Your task to perform on an android device: toggle wifi Image 0: 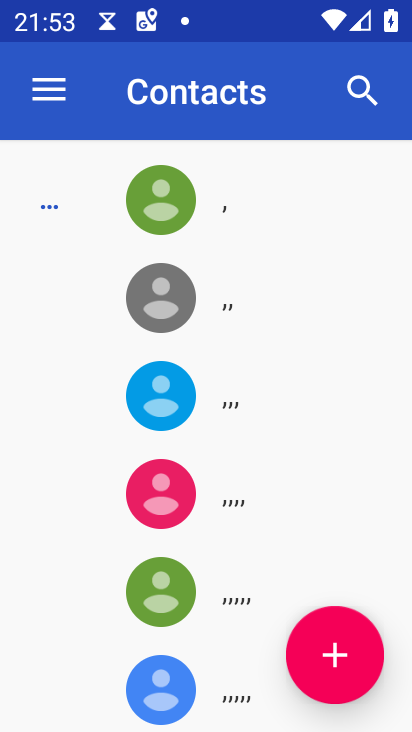
Step 0: press home button
Your task to perform on an android device: toggle wifi Image 1: 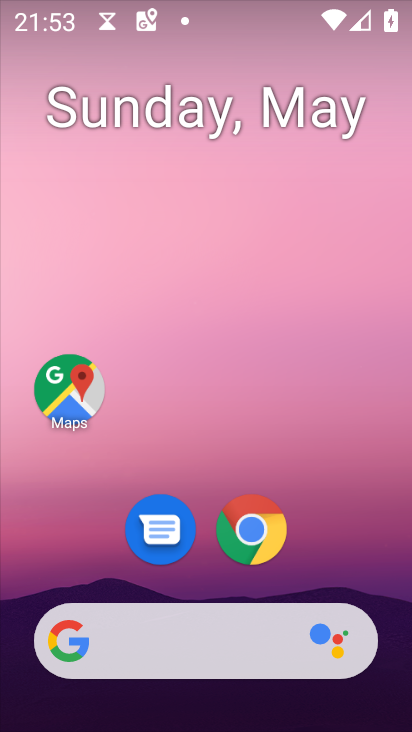
Step 1: drag from (308, 577) to (296, 13)
Your task to perform on an android device: toggle wifi Image 2: 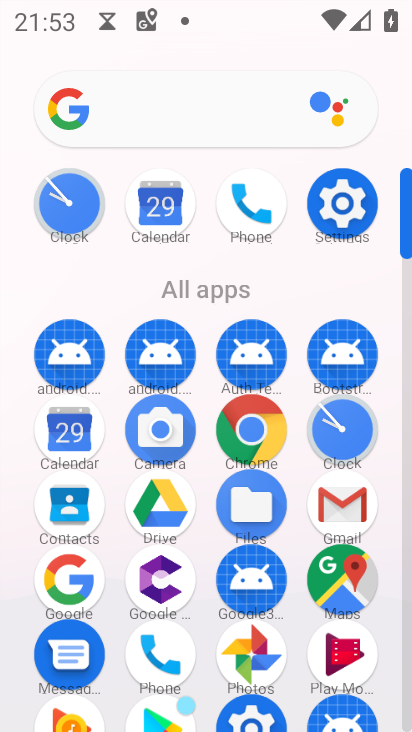
Step 2: click (344, 201)
Your task to perform on an android device: toggle wifi Image 3: 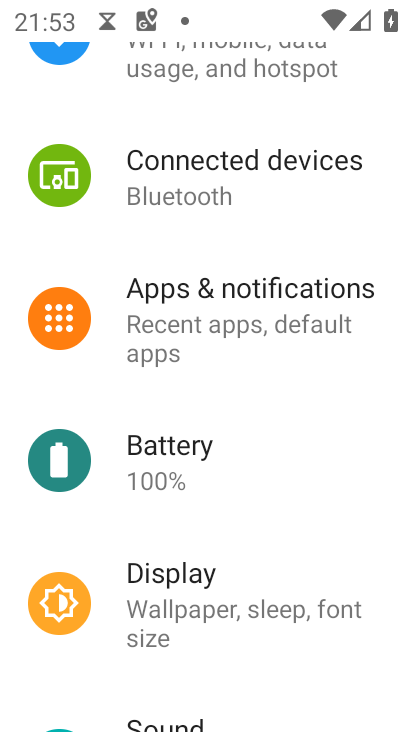
Step 3: drag from (248, 221) to (286, 673)
Your task to perform on an android device: toggle wifi Image 4: 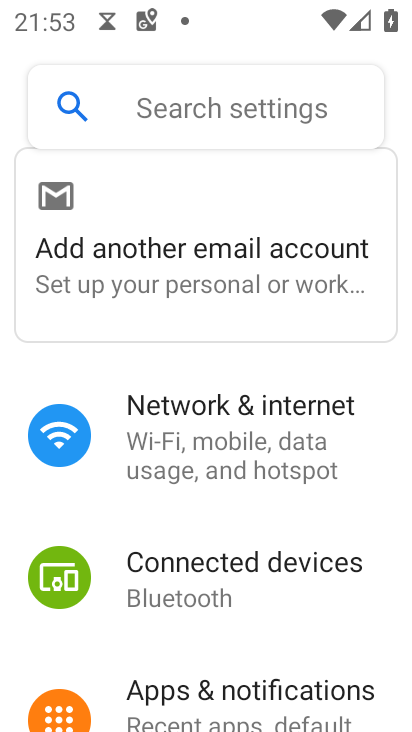
Step 4: click (242, 413)
Your task to perform on an android device: toggle wifi Image 5: 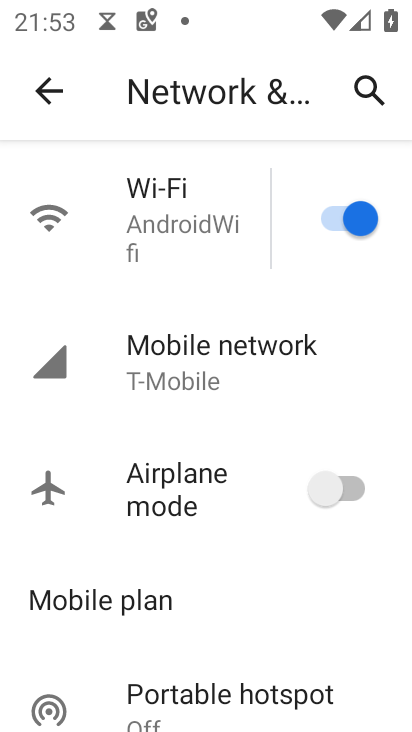
Step 5: click (349, 212)
Your task to perform on an android device: toggle wifi Image 6: 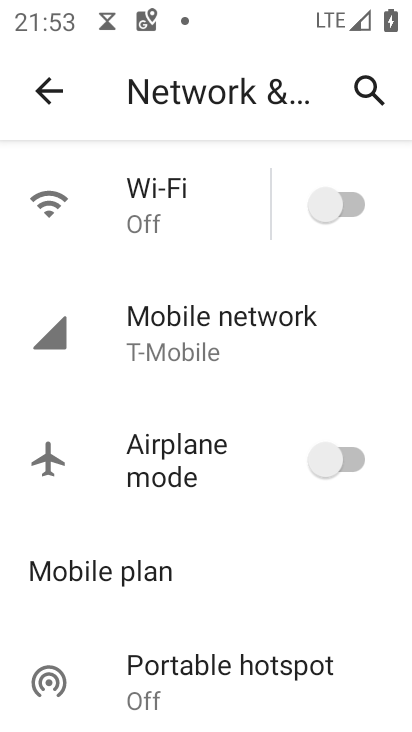
Step 6: task complete